Your task to perform on an android device: Open calendar and show me the third week of next month Image 0: 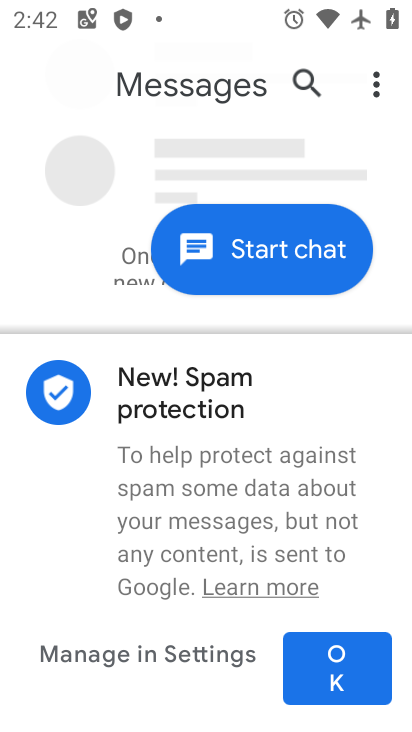
Step 0: press home button
Your task to perform on an android device: Open calendar and show me the third week of next month Image 1: 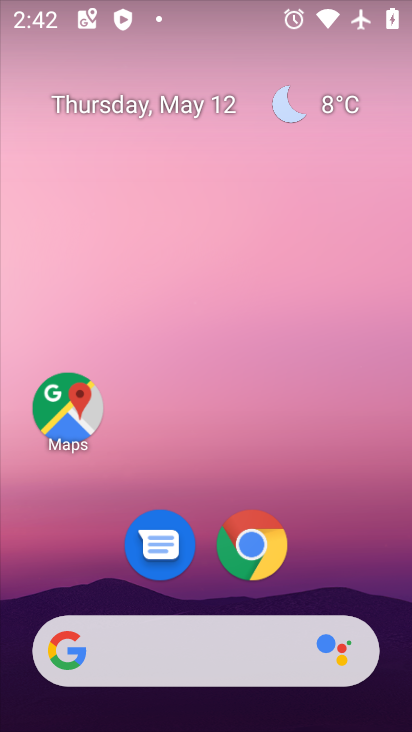
Step 1: drag from (397, 635) to (299, 85)
Your task to perform on an android device: Open calendar and show me the third week of next month Image 2: 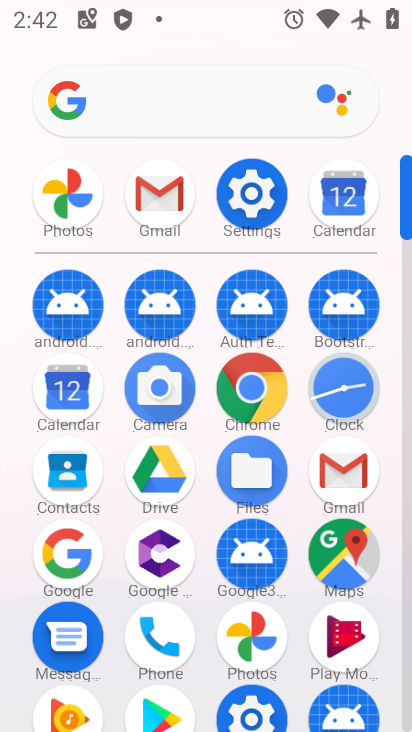
Step 2: click (404, 711)
Your task to perform on an android device: Open calendar and show me the third week of next month Image 3: 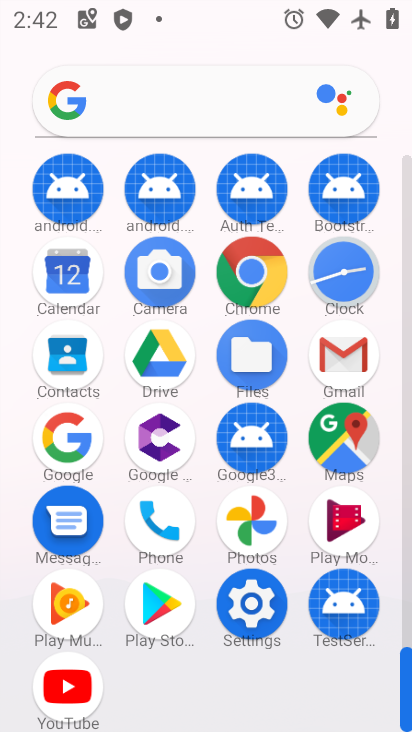
Step 3: click (68, 273)
Your task to perform on an android device: Open calendar and show me the third week of next month Image 4: 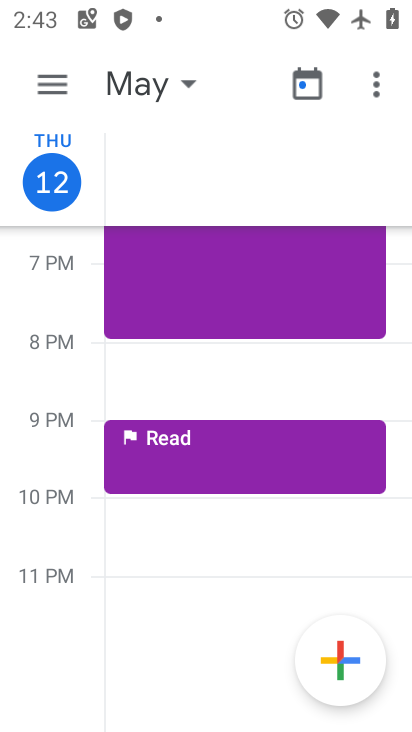
Step 4: click (56, 82)
Your task to perform on an android device: Open calendar and show me the third week of next month Image 5: 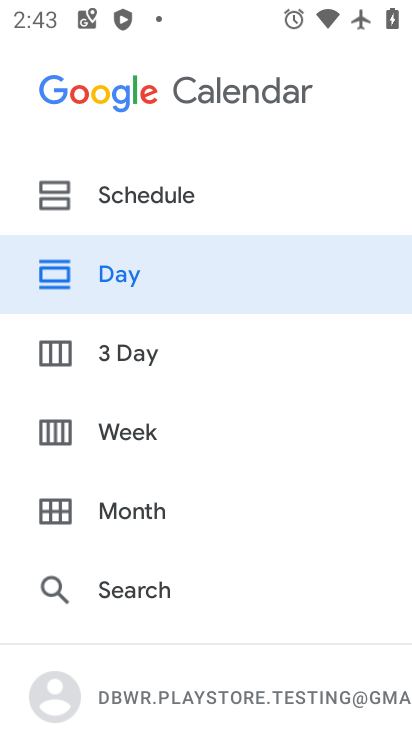
Step 5: click (123, 432)
Your task to perform on an android device: Open calendar and show me the third week of next month Image 6: 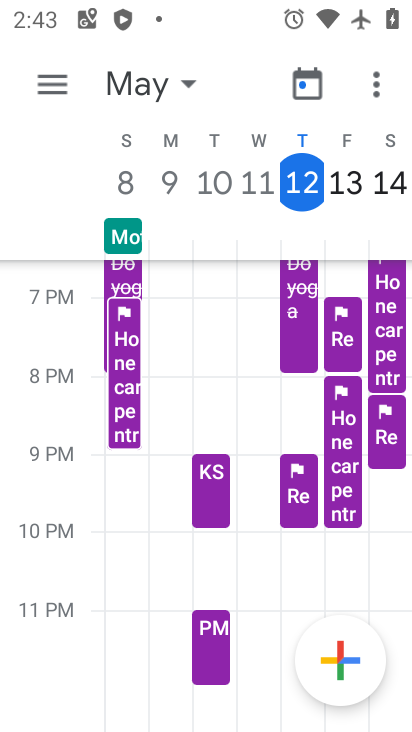
Step 6: click (186, 87)
Your task to perform on an android device: Open calendar and show me the third week of next month Image 7: 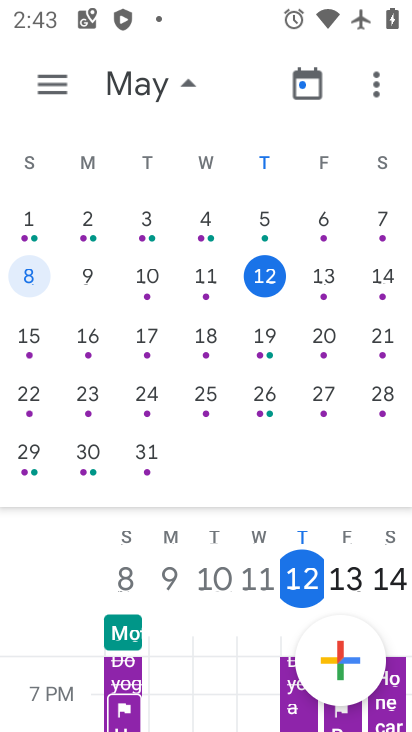
Step 7: drag from (383, 327) to (3, 257)
Your task to perform on an android device: Open calendar and show me the third week of next month Image 8: 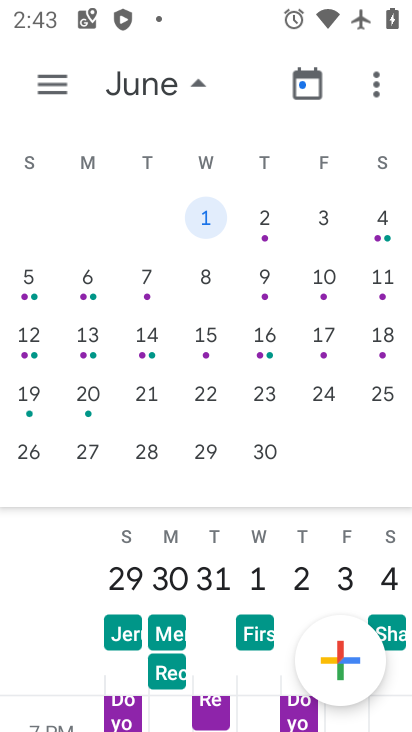
Step 8: click (32, 338)
Your task to perform on an android device: Open calendar and show me the third week of next month Image 9: 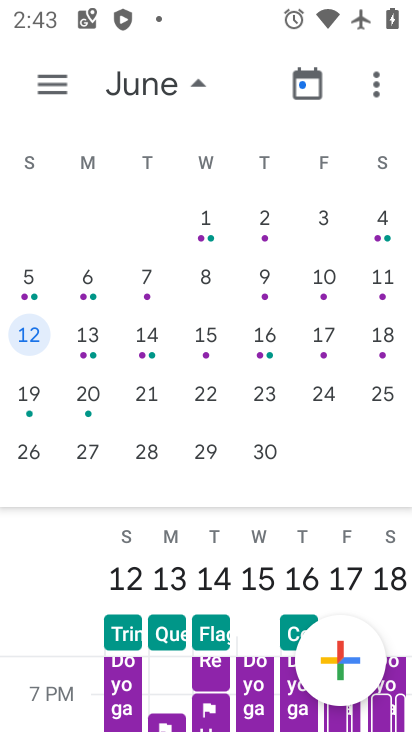
Step 9: task complete